Your task to perform on an android device: turn off improve location accuracy Image 0: 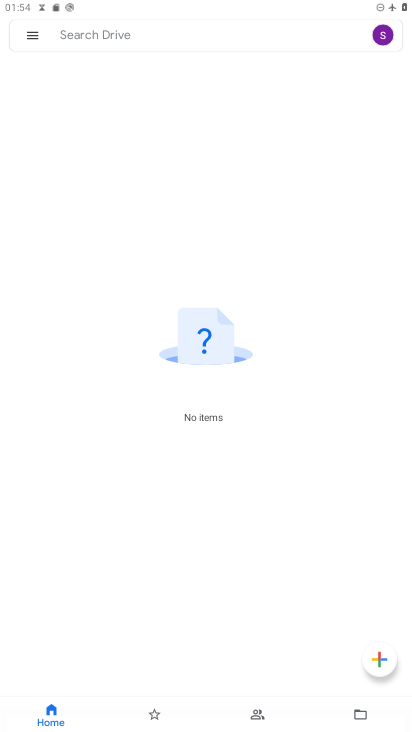
Step 0: press home button
Your task to perform on an android device: turn off improve location accuracy Image 1: 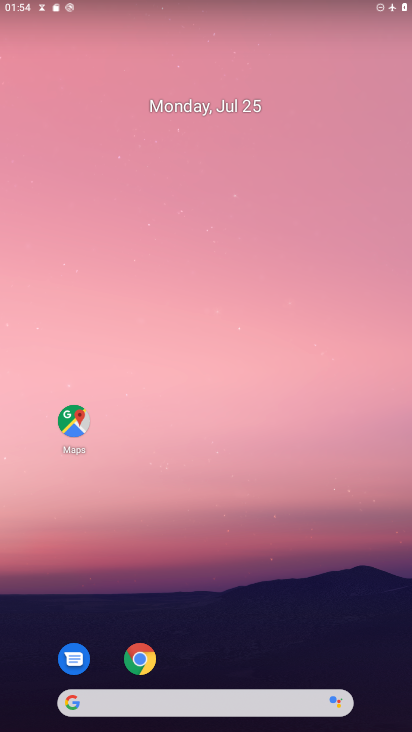
Step 1: drag from (254, 565) to (226, 157)
Your task to perform on an android device: turn off improve location accuracy Image 2: 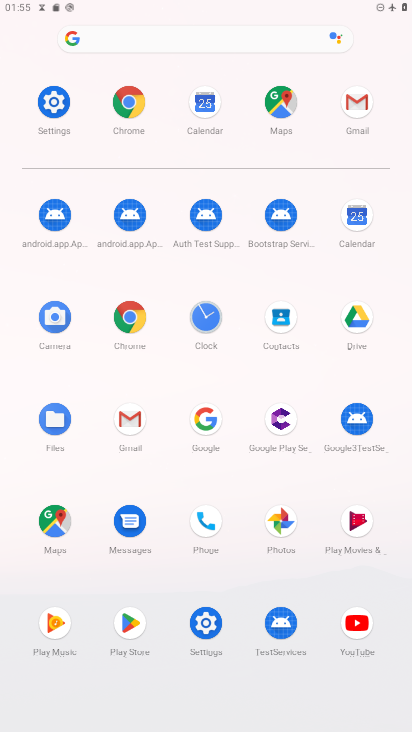
Step 2: click (52, 98)
Your task to perform on an android device: turn off improve location accuracy Image 3: 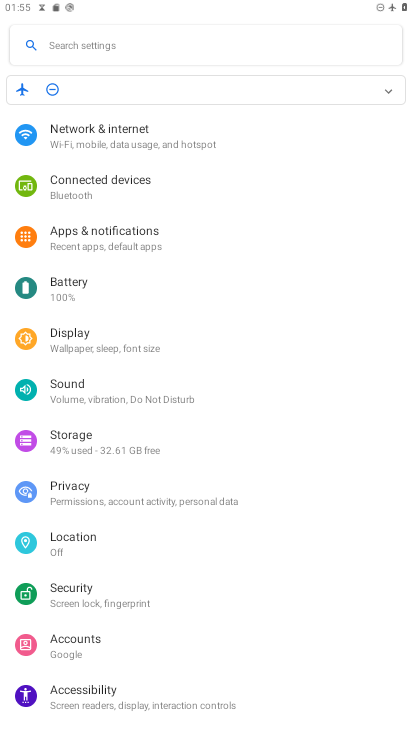
Step 3: click (95, 543)
Your task to perform on an android device: turn off improve location accuracy Image 4: 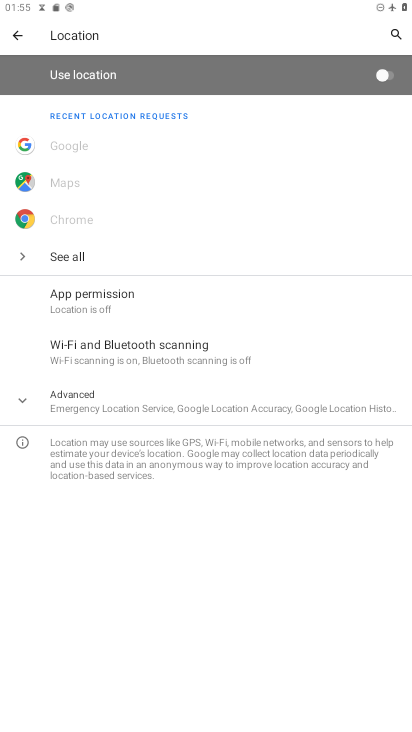
Step 4: click (169, 406)
Your task to perform on an android device: turn off improve location accuracy Image 5: 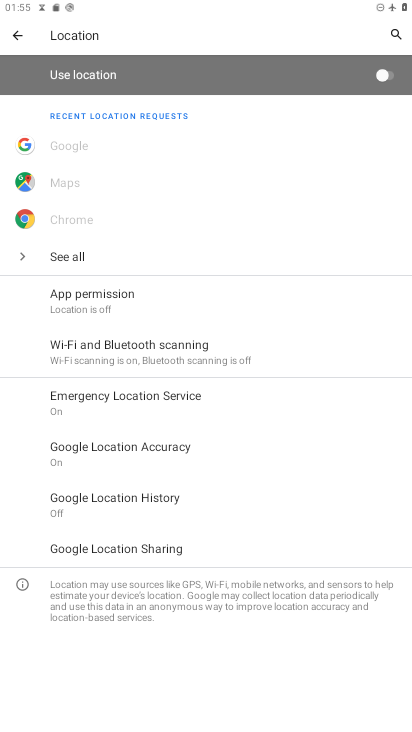
Step 5: click (164, 446)
Your task to perform on an android device: turn off improve location accuracy Image 6: 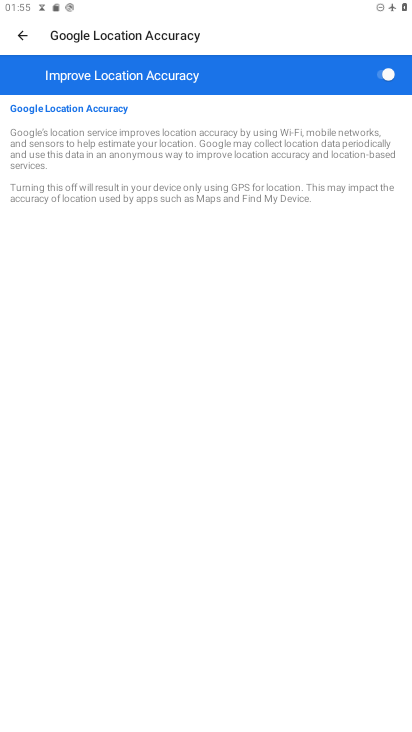
Step 6: click (379, 72)
Your task to perform on an android device: turn off improve location accuracy Image 7: 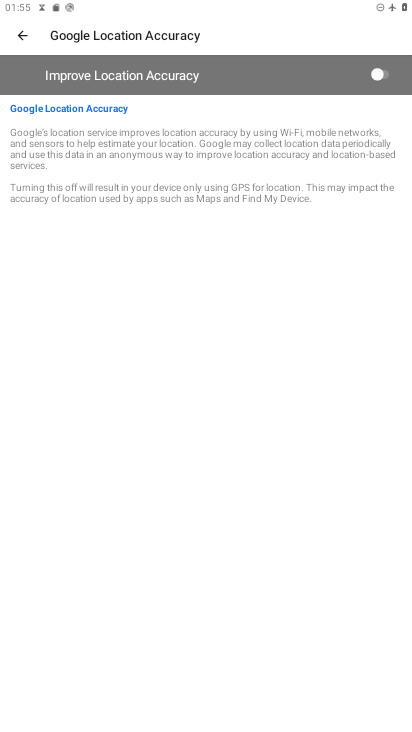
Step 7: task complete